Your task to perform on an android device: Go to privacy settings Image 0: 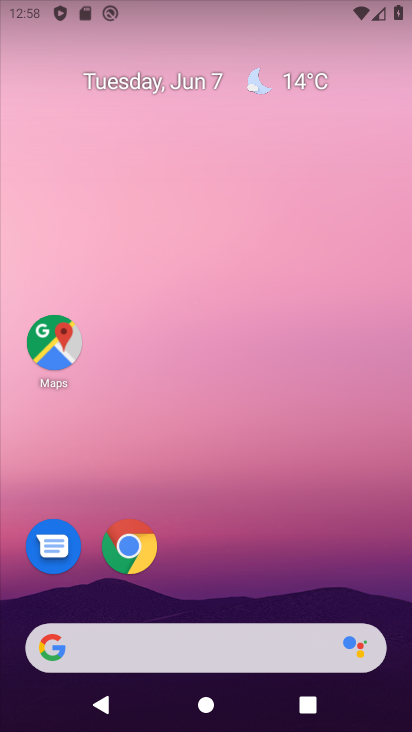
Step 0: drag from (213, 595) to (186, 89)
Your task to perform on an android device: Go to privacy settings Image 1: 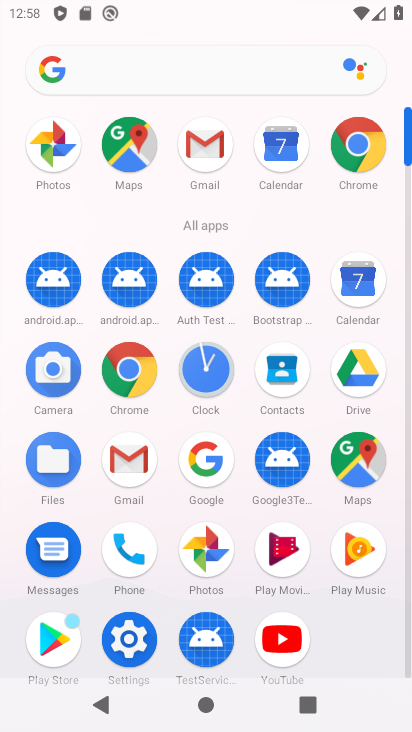
Step 1: click (146, 628)
Your task to perform on an android device: Go to privacy settings Image 2: 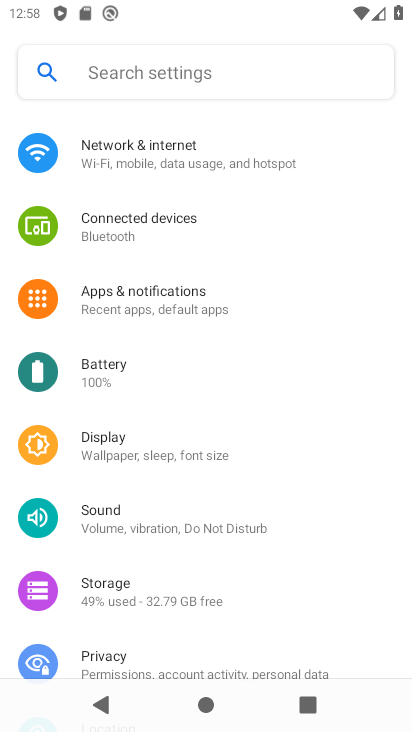
Step 2: drag from (149, 626) to (98, 183)
Your task to perform on an android device: Go to privacy settings Image 3: 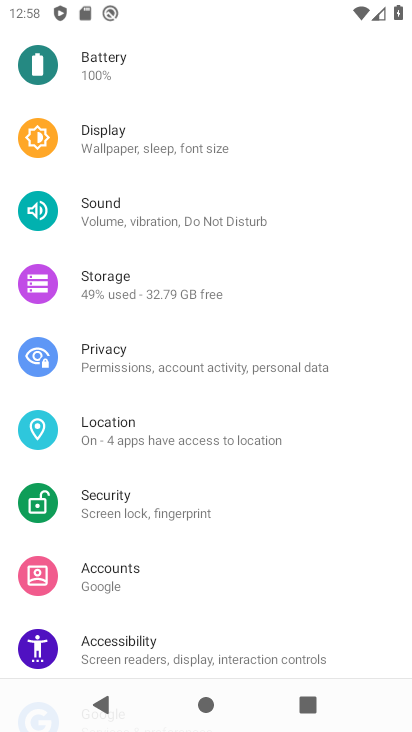
Step 3: click (105, 365)
Your task to perform on an android device: Go to privacy settings Image 4: 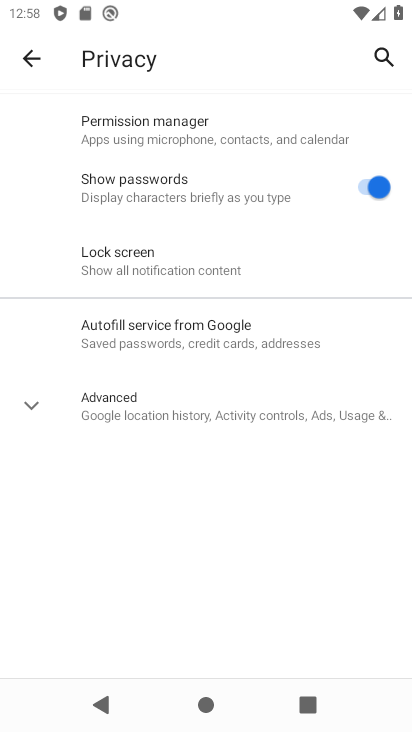
Step 4: click (104, 432)
Your task to perform on an android device: Go to privacy settings Image 5: 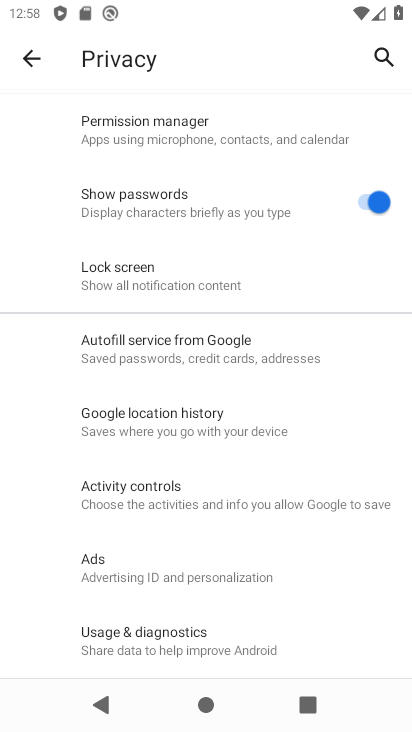
Step 5: task complete